Your task to perform on an android device: change timer sound Image 0: 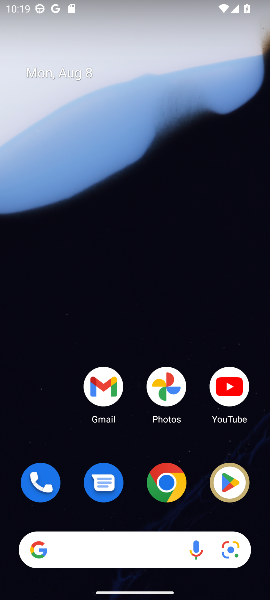
Step 0: drag from (108, 445) to (149, 0)
Your task to perform on an android device: change timer sound Image 1: 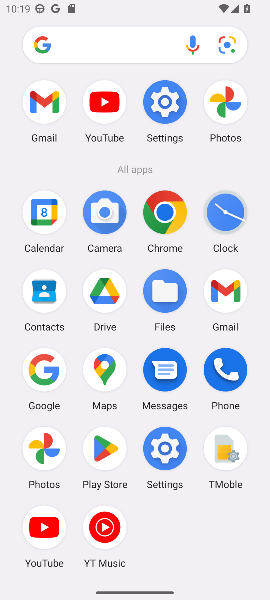
Step 1: click (225, 220)
Your task to perform on an android device: change timer sound Image 2: 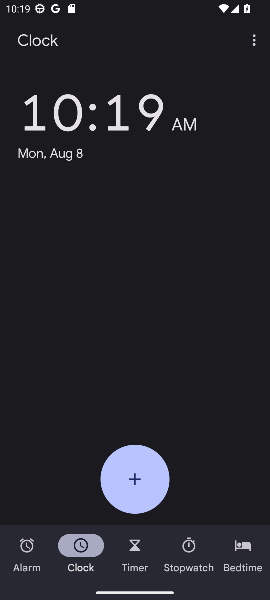
Step 2: click (252, 39)
Your task to perform on an android device: change timer sound Image 3: 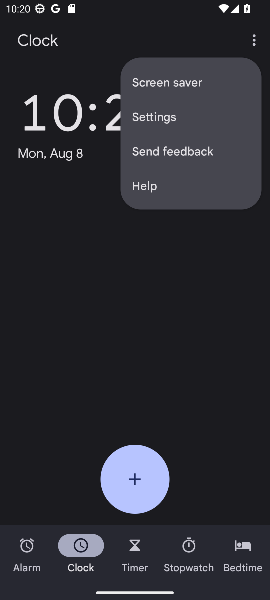
Step 3: click (181, 121)
Your task to perform on an android device: change timer sound Image 4: 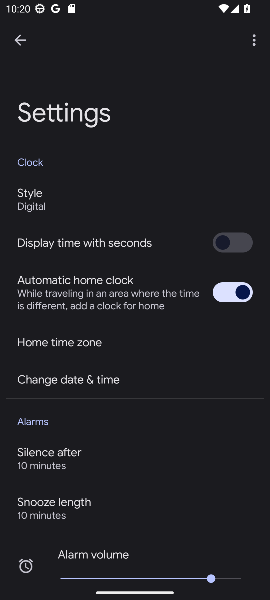
Step 4: drag from (82, 453) to (74, 3)
Your task to perform on an android device: change timer sound Image 5: 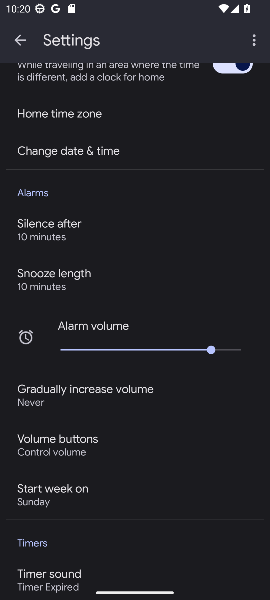
Step 5: click (49, 582)
Your task to perform on an android device: change timer sound Image 6: 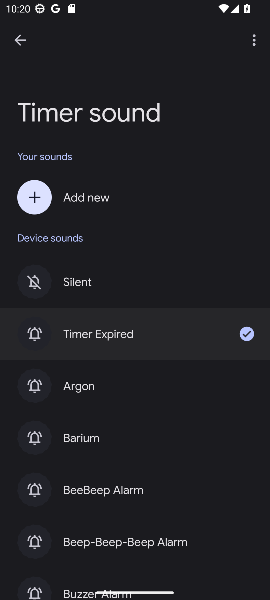
Step 6: click (126, 384)
Your task to perform on an android device: change timer sound Image 7: 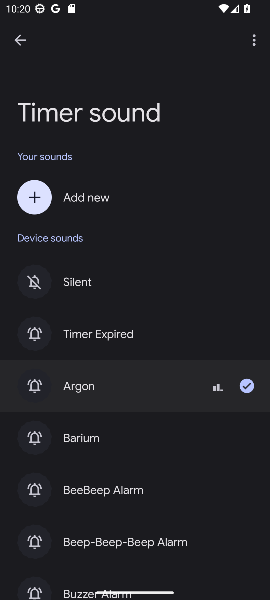
Step 7: task complete